Your task to perform on an android device: turn on sleep mode Image 0: 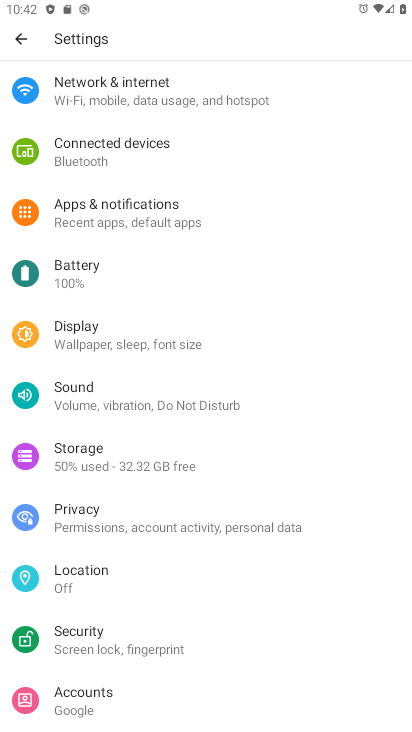
Step 0: press home button
Your task to perform on an android device: turn on sleep mode Image 1: 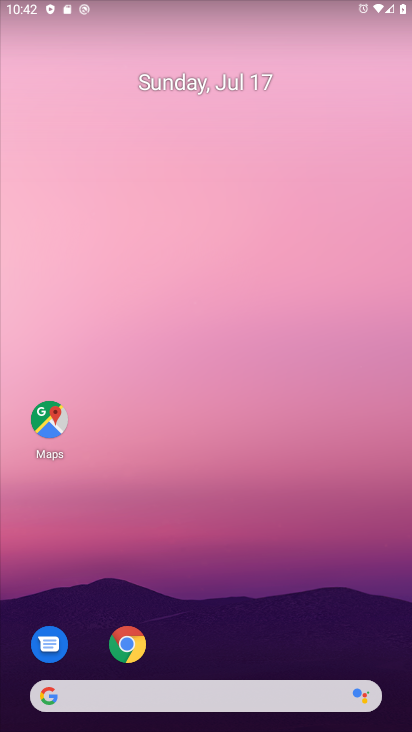
Step 1: drag from (290, 592) to (321, 2)
Your task to perform on an android device: turn on sleep mode Image 2: 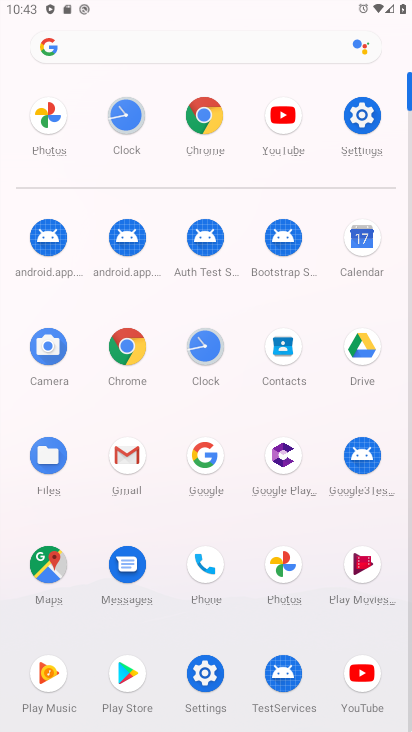
Step 2: click (369, 122)
Your task to perform on an android device: turn on sleep mode Image 3: 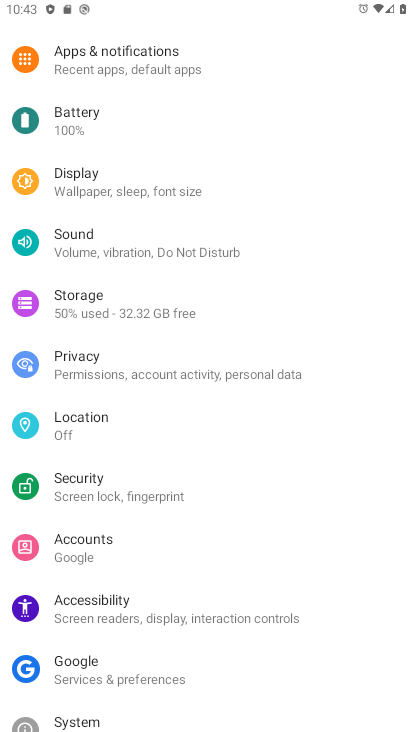
Step 3: click (105, 182)
Your task to perform on an android device: turn on sleep mode Image 4: 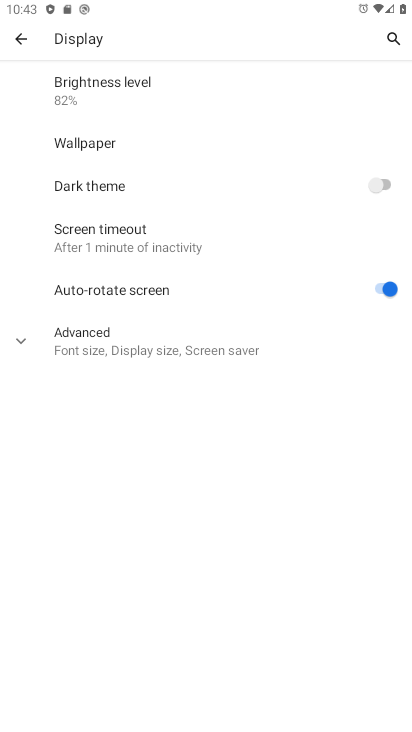
Step 4: click (120, 235)
Your task to perform on an android device: turn on sleep mode Image 5: 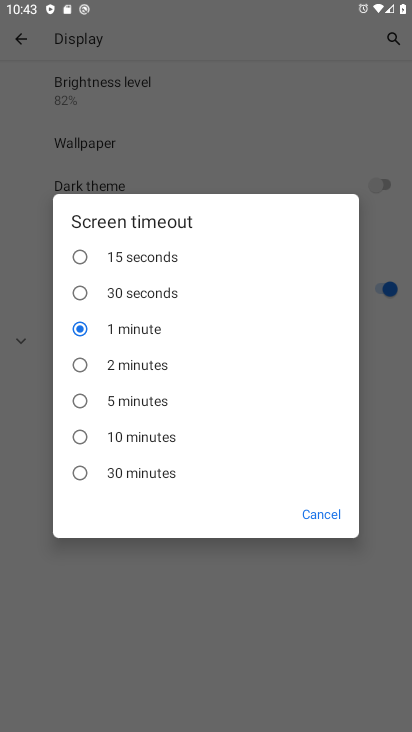
Step 5: task complete